Your task to perform on an android device: turn off picture-in-picture Image 0: 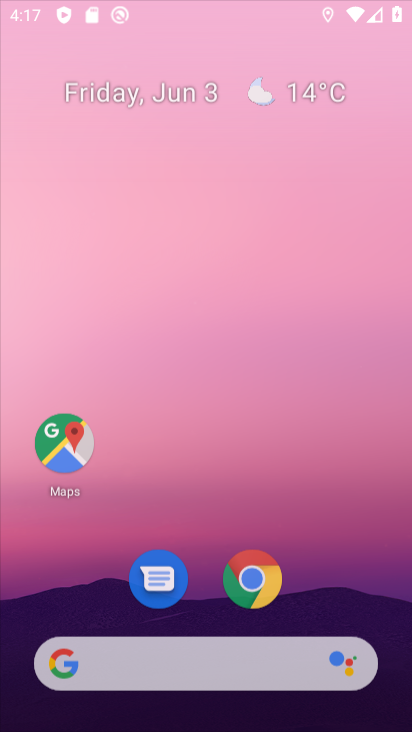
Step 0: click (174, 132)
Your task to perform on an android device: turn off picture-in-picture Image 1: 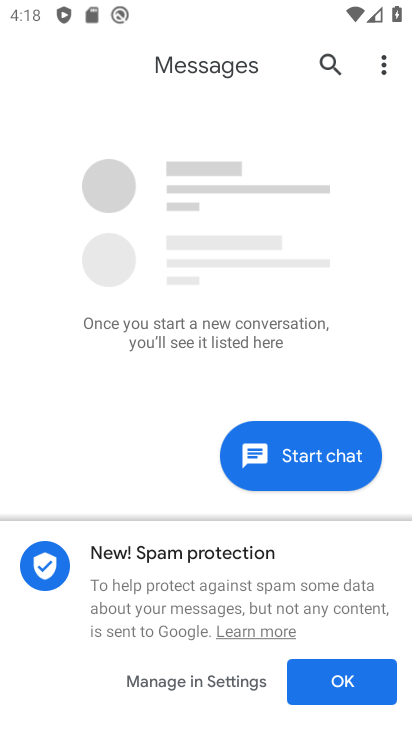
Step 1: press home button
Your task to perform on an android device: turn off picture-in-picture Image 2: 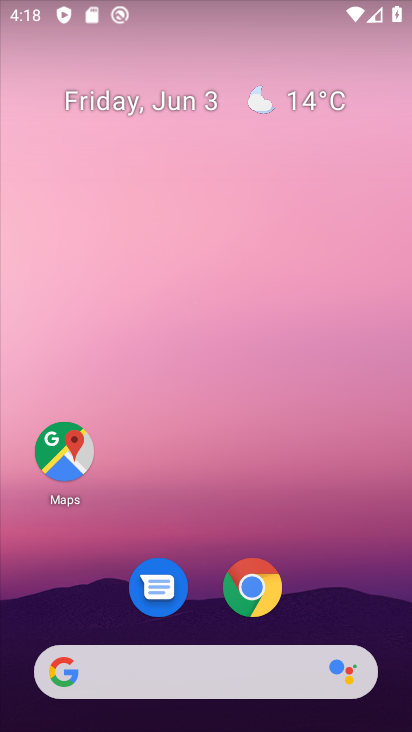
Step 2: click (239, 593)
Your task to perform on an android device: turn off picture-in-picture Image 3: 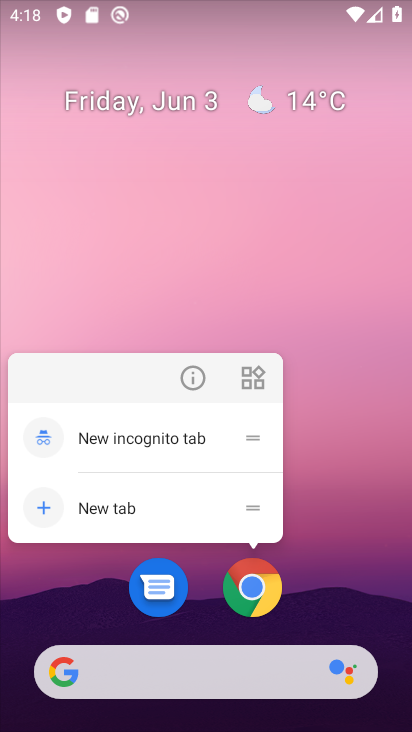
Step 3: click (190, 388)
Your task to perform on an android device: turn off picture-in-picture Image 4: 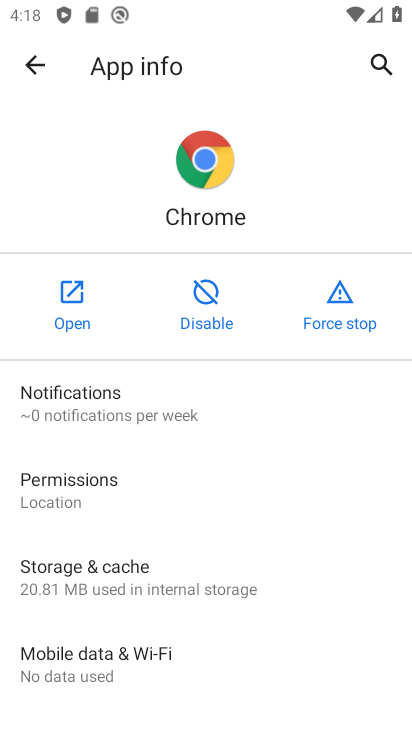
Step 4: drag from (128, 652) to (150, 273)
Your task to perform on an android device: turn off picture-in-picture Image 5: 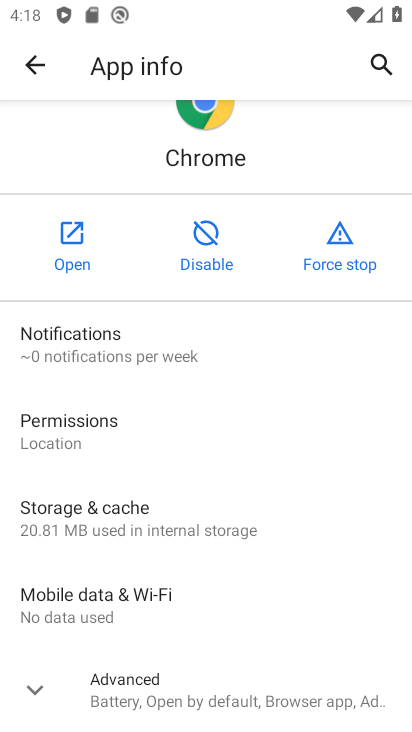
Step 5: click (177, 702)
Your task to perform on an android device: turn off picture-in-picture Image 6: 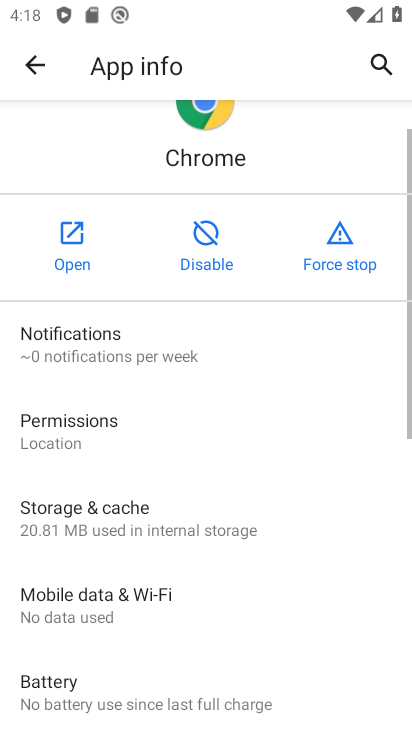
Step 6: drag from (205, 662) to (217, 397)
Your task to perform on an android device: turn off picture-in-picture Image 7: 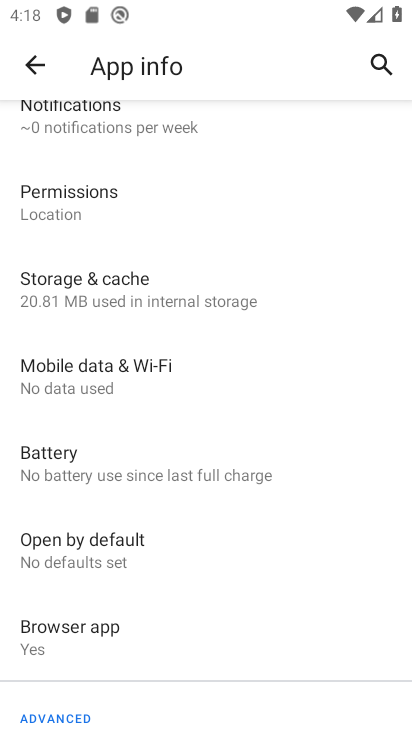
Step 7: drag from (151, 701) to (153, 397)
Your task to perform on an android device: turn off picture-in-picture Image 8: 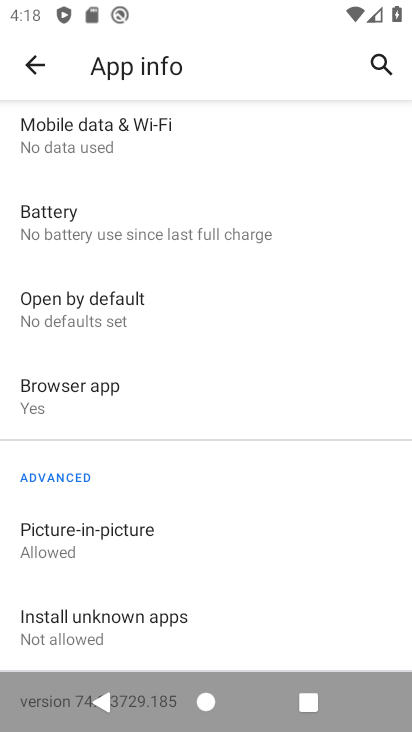
Step 8: click (91, 551)
Your task to perform on an android device: turn off picture-in-picture Image 9: 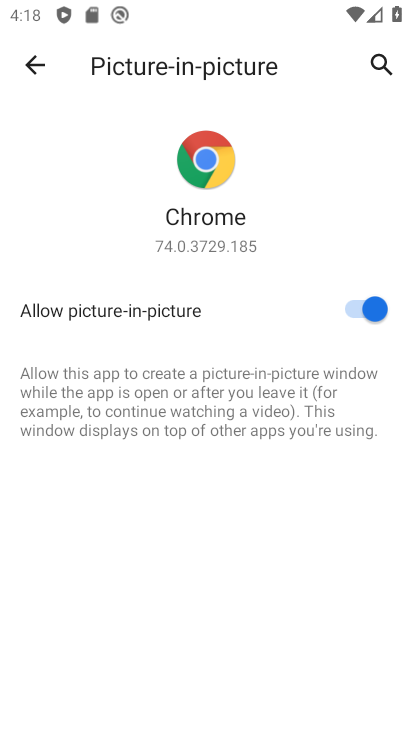
Step 9: click (349, 309)
Your task to perform on an android device: turn off picture-in-picture Image 10: 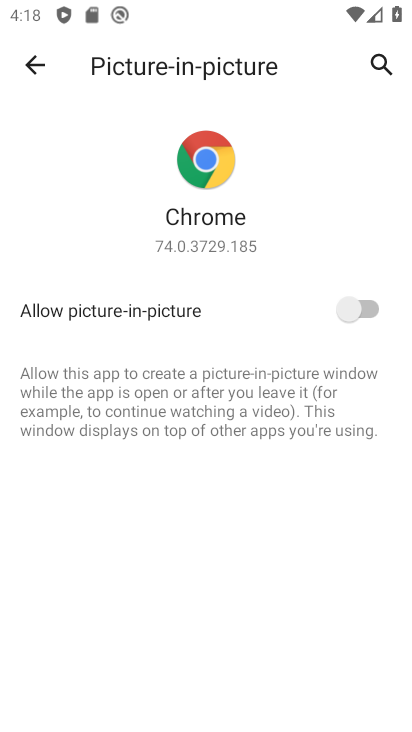
Step 10: task complete